Your task to perform on an android device: toggle pop-ups in chrome Image 0: 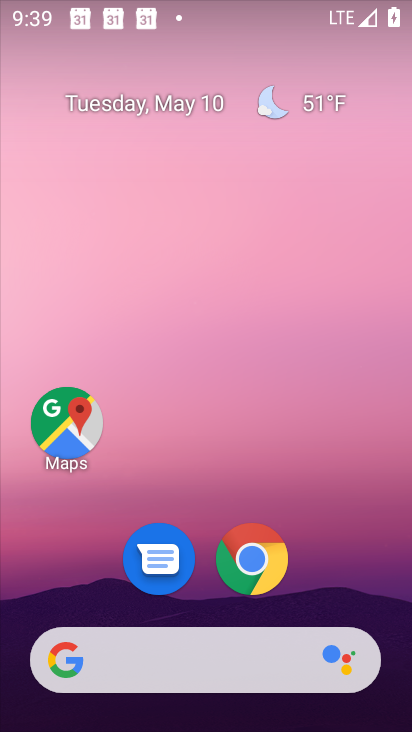
Step 0: click (256, 560)
Your task to perform on an android device: toggle pop-ups in chrome Image 1: 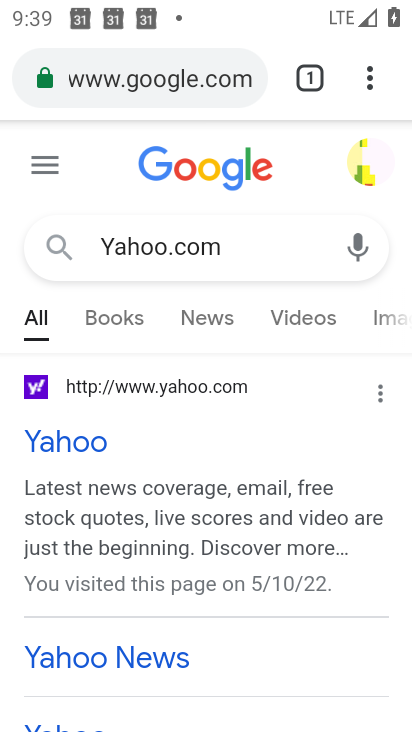
Step 1: click (372, 78)
Your task to perform on an android device: toggle pop-ups in chrome Image 2: 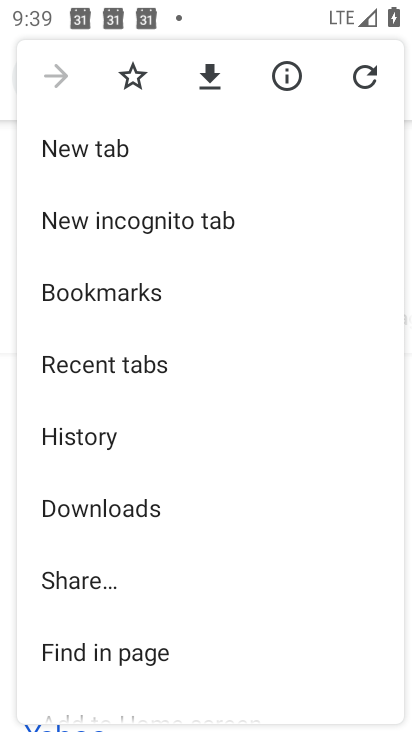
Step 2: drag from (192, 564) to (195, 400)
Your task to perform on an android device: toggle pop-ups in chrome Image 3: 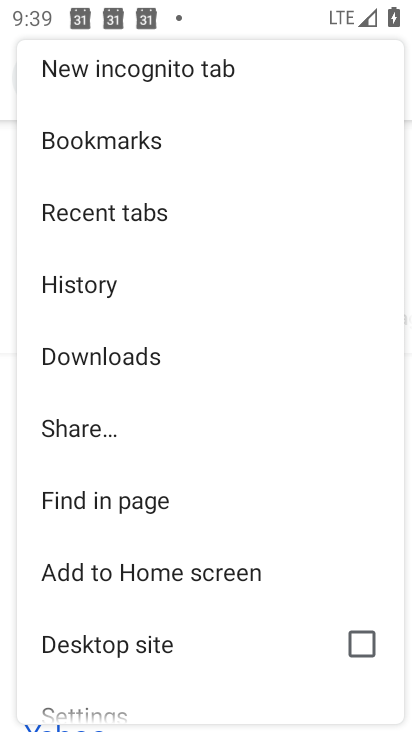
Step 3: drag from (205, 514) to (203, 355)
Your task to perform on an android device: toggle pop-ups in chrome Image 4: 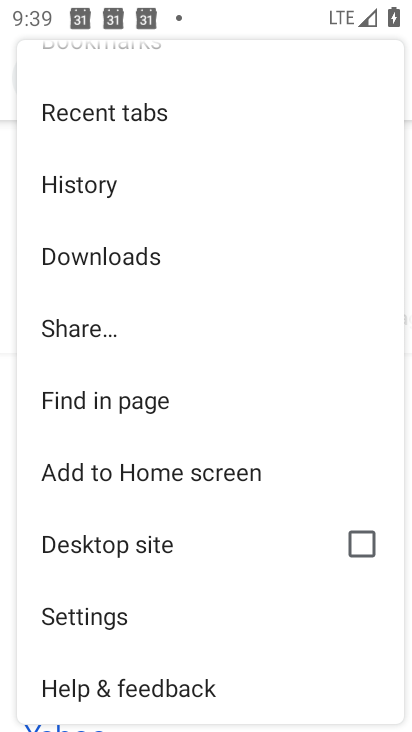
Step 4: click (116, 611)
Your task to perform on an android device: toggle pop-ups in chrome Image 5: 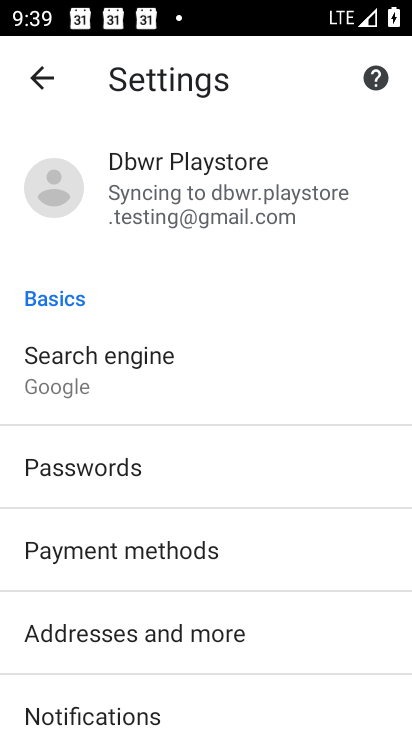
Step 5: drag from (189, 529) to (250, 433)
Your task to perform on an android device: toggle pop-ups in chrome Image 6: 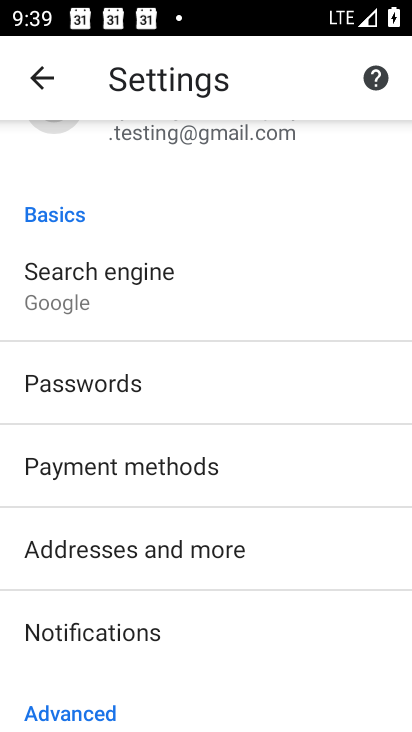
Step 6: drag from (200, 598) to (244, 473)
Your task to perform on an android device: toggle pop-ups in chrome Image 7: 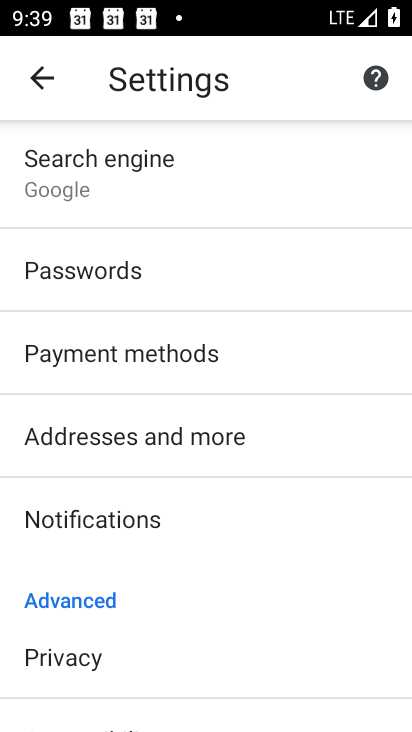
Step 7: drag from (189, 611) to (272, 452)
Your task to perform on an android device: toggle pop-ups in chrome Image 8: 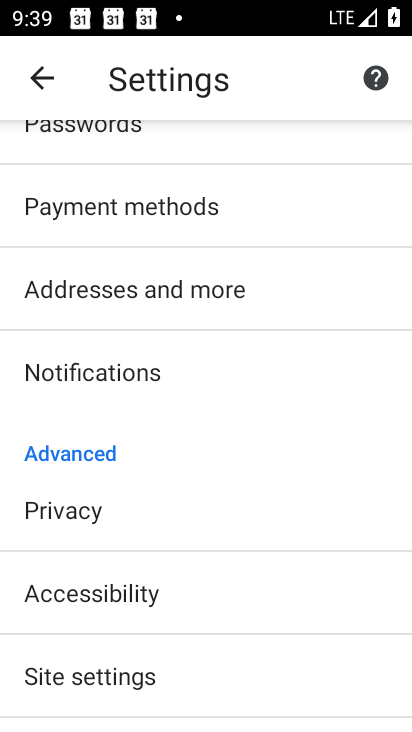
Step 8: drag from (206, 604) to (231, 484)
Your task to perform on an android device: toggle pop-ups in chrome Image 9: 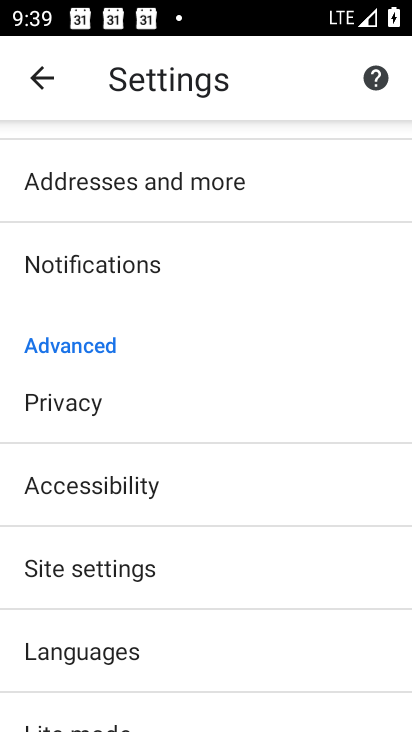
Step 9: drag from (181, 582) to (236, 478)
Your task to perform on an android device: toggle pop-ups in chrome Image 10: 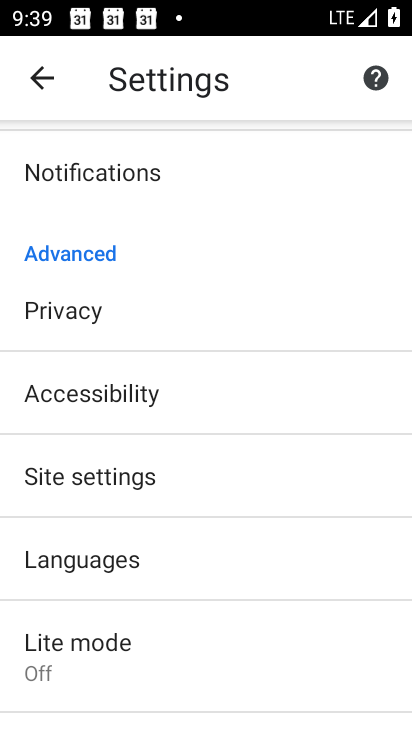
Step 10: click (128, 475)
Your task to perform on an android device: toggle pop-ups in chrome Image 11: 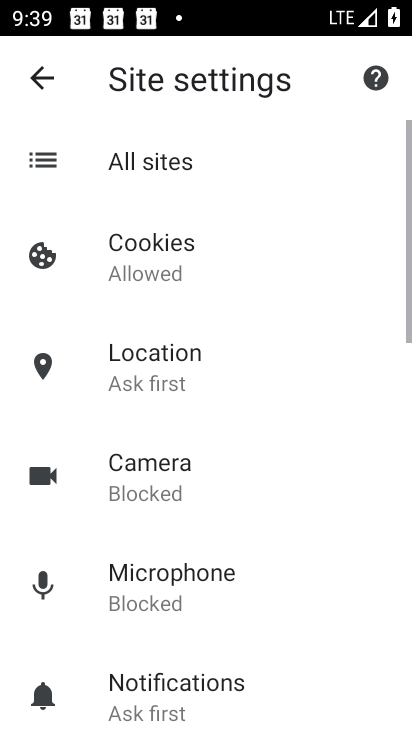
Step 11: drag from (203, 555) to (238, 462)
Your task to perform on an android device: toggle pop-ups in chrome Image 12: 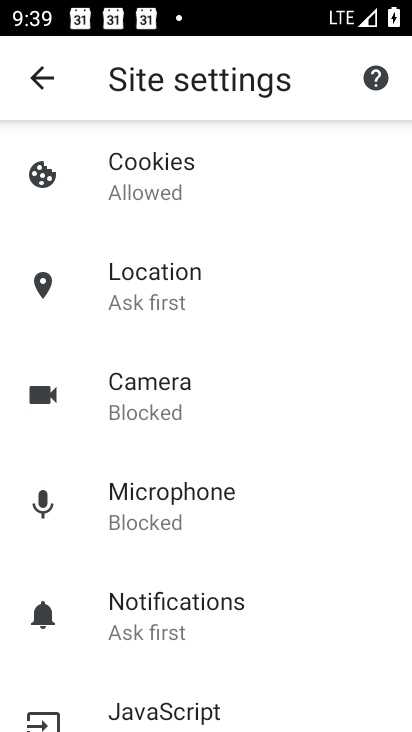
Step 12: drag from (167, 652) to (224, 534)
Your task to perform on an android device: toggle pop-ups in chrome Image 13: 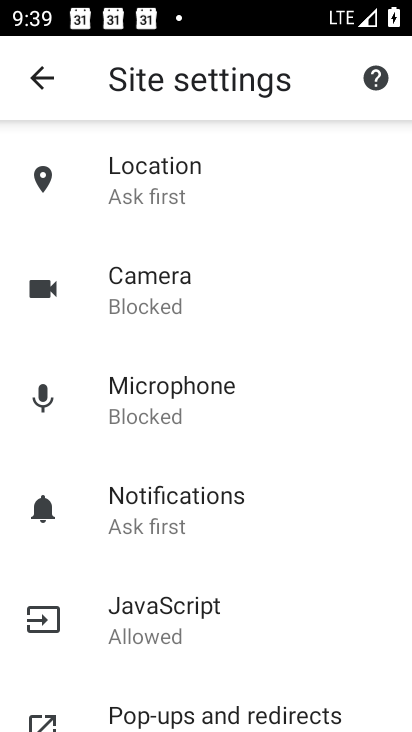
Step 13: drag from (165, 670) to (237, 525)
Your task to perform on an android device: toggle pop-ups in chrome Image 14: 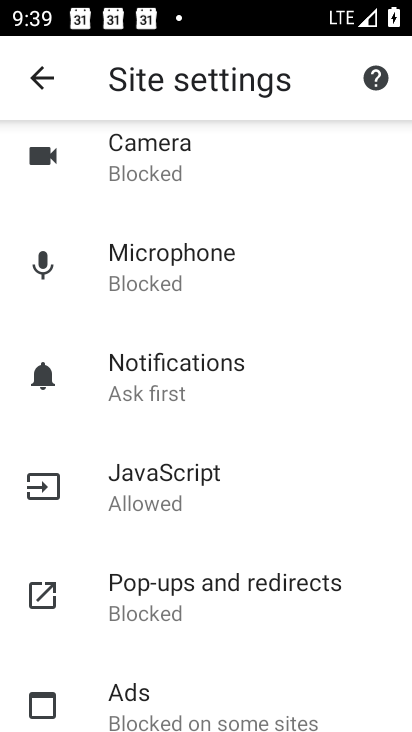
Step 14: click (207, 577)
Your task to perform on an android device: toggle pop-ups in chrome Image 15: 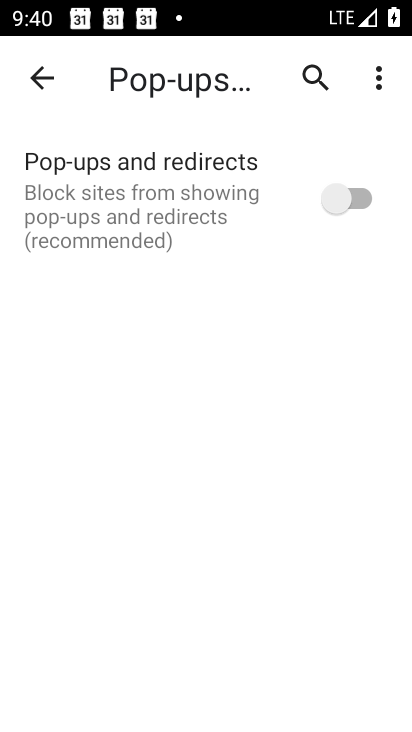
Step 15: click (358, 200)
Your task to perform on an android device: toggle pop-ups in chrome Image 16: 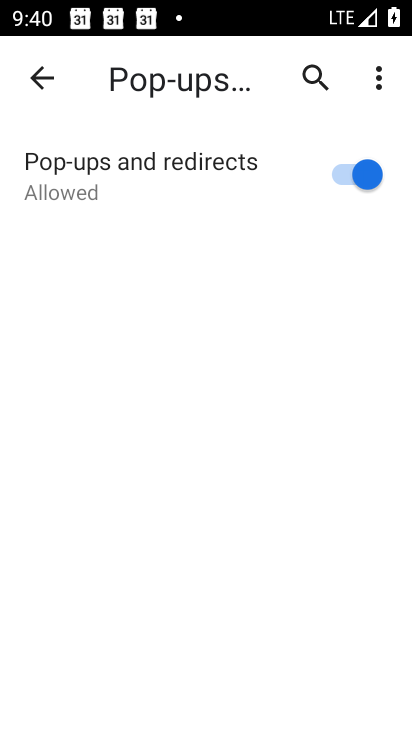
Step 16: task complete